Your task to perform on an android device: Open notification settings Image 0: 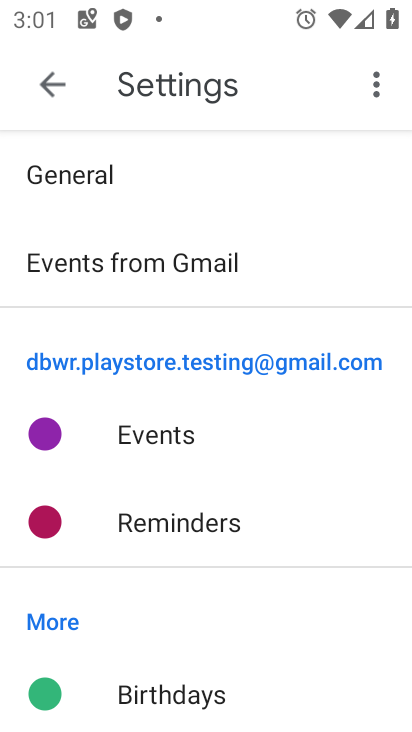
Step 0: press home button
Your task to perform on an android device: Open notification settings Image 1: 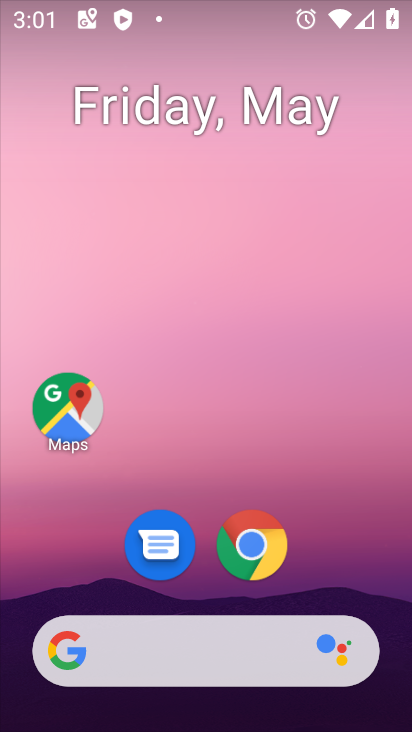
Step 1: drag from (341, 576) to (312, 178)
Your task to perform on an android device: Open notification settings Image 2: 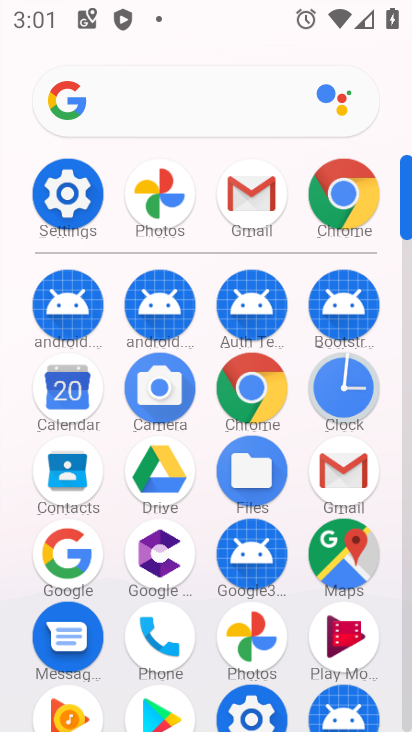
Step 2: click (52, 190)
Your task to perform on an android device: Open notification settings Image 3: 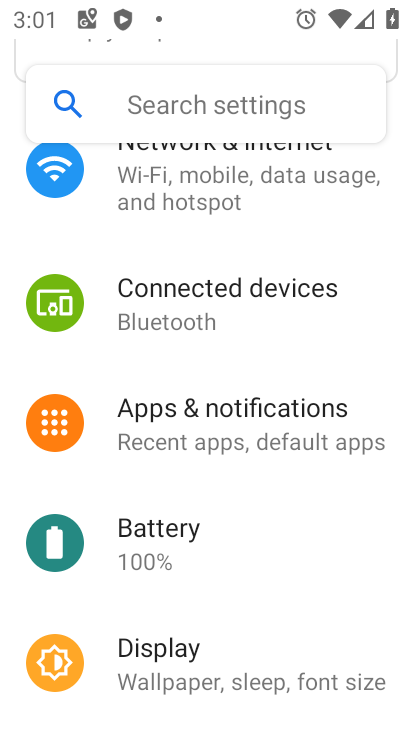
Step 3: click (268, 440)
Your task to perform on an android device: Open notification settings Image 4: 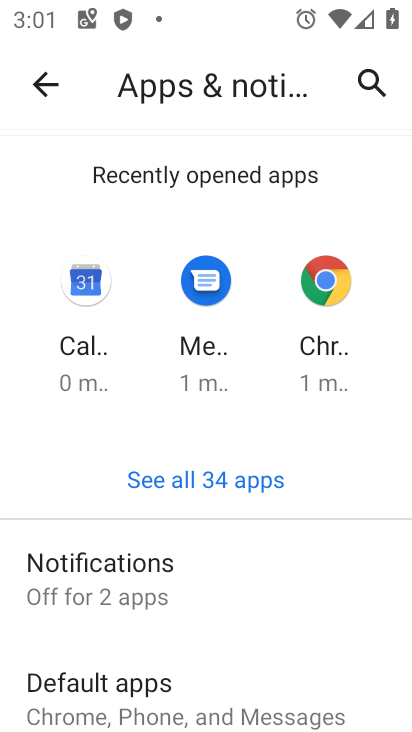
Step 4: task complete